Your task to perform on an android device: Search for "razer blade" on walmart.com, select the first entry, add it to the cart, then select checkout. Image 0: 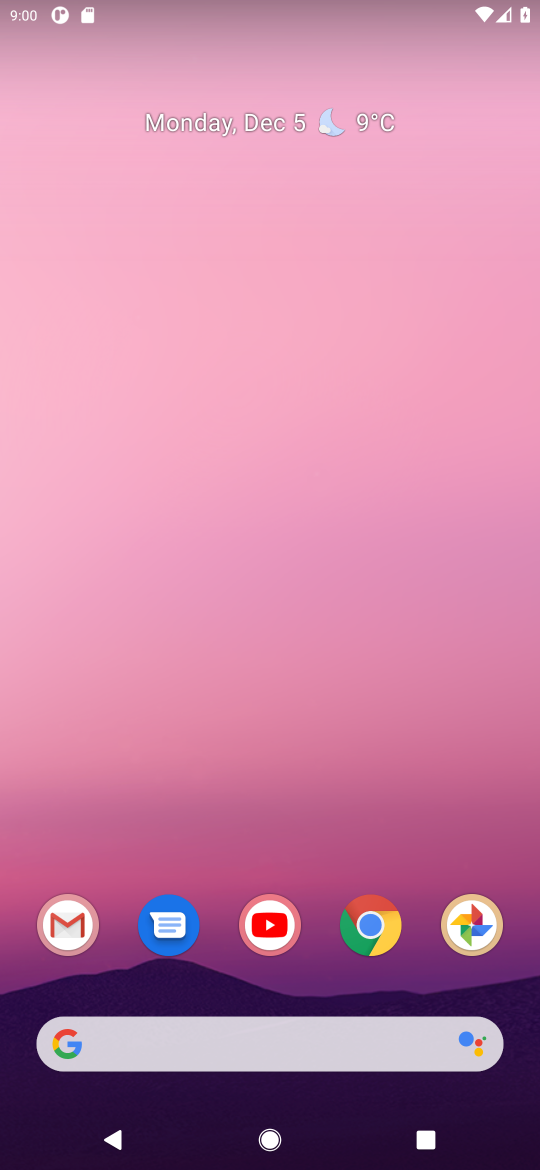
Step 0: click (378, 924)
Your task to perform on an android device: Search for "razer blade" on walmart.com, select the first entry, add it to the cart, then select checkout. Image 1: 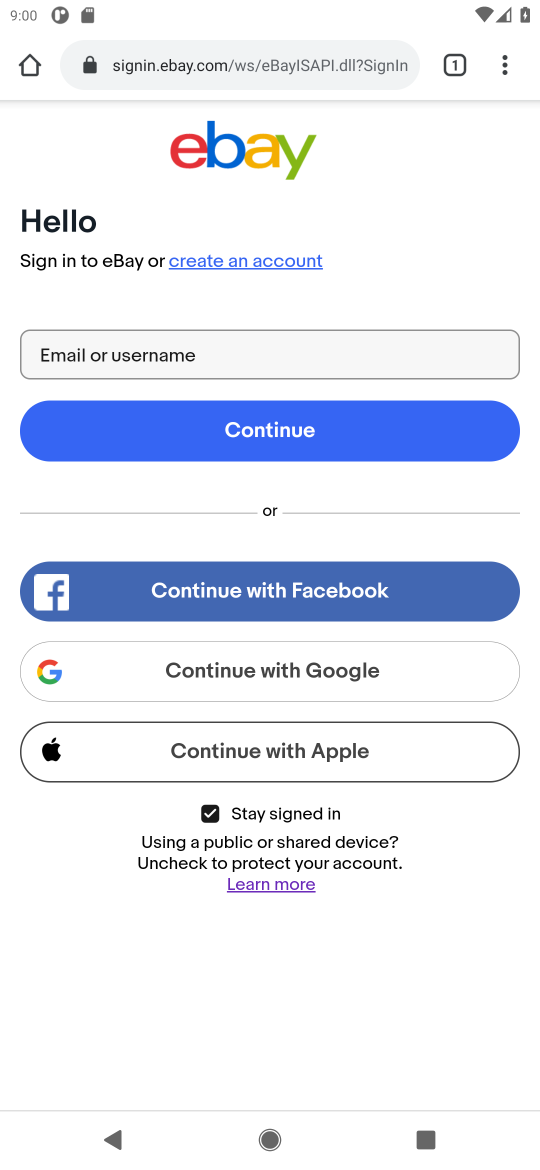
Step 1: click (378, 924)
Your task to perform on an android device: Search for "razer blade" on walmart.com, select the first entry, add it to the cart, then select checkout. Image 2: 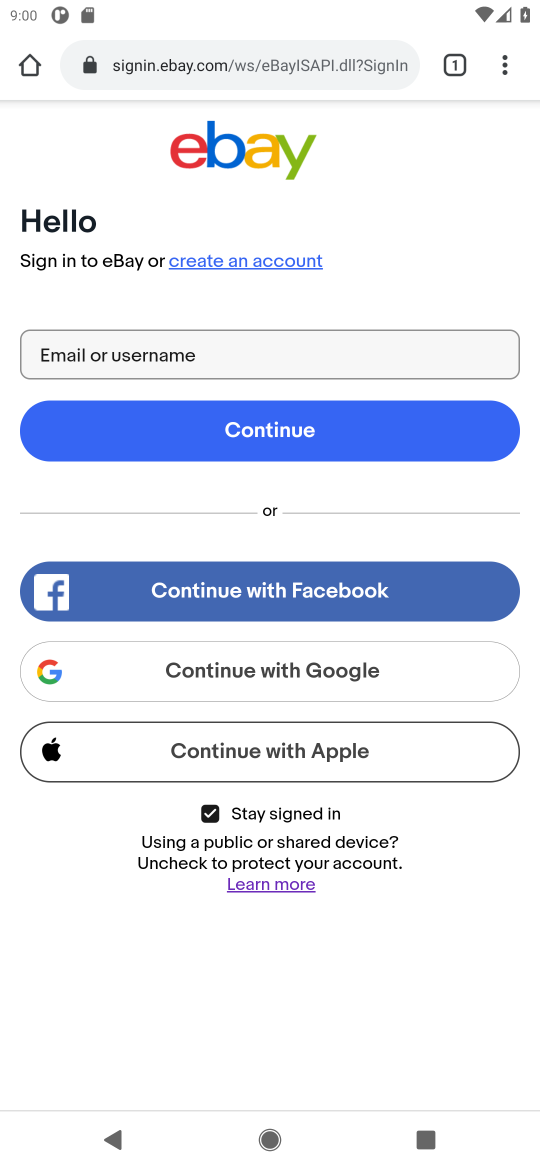
Step 2: click (207, 66)
Your task to perform on an android device: Search for "razer blade" on walmart.com, select the first entry, add it to the cart, then select checkout. Image 3: 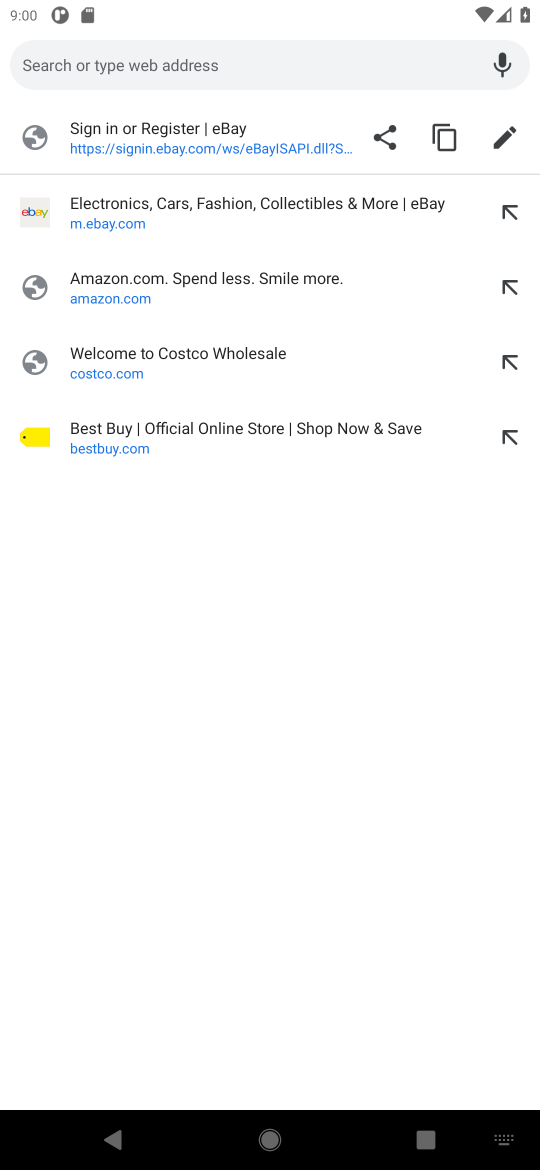
Step 3: type "walmart.com"
Your task to perform on an android device: Search for "razer blade" on walmart.com, select the first entry, add it to the cart, then select checkout. Image 4: 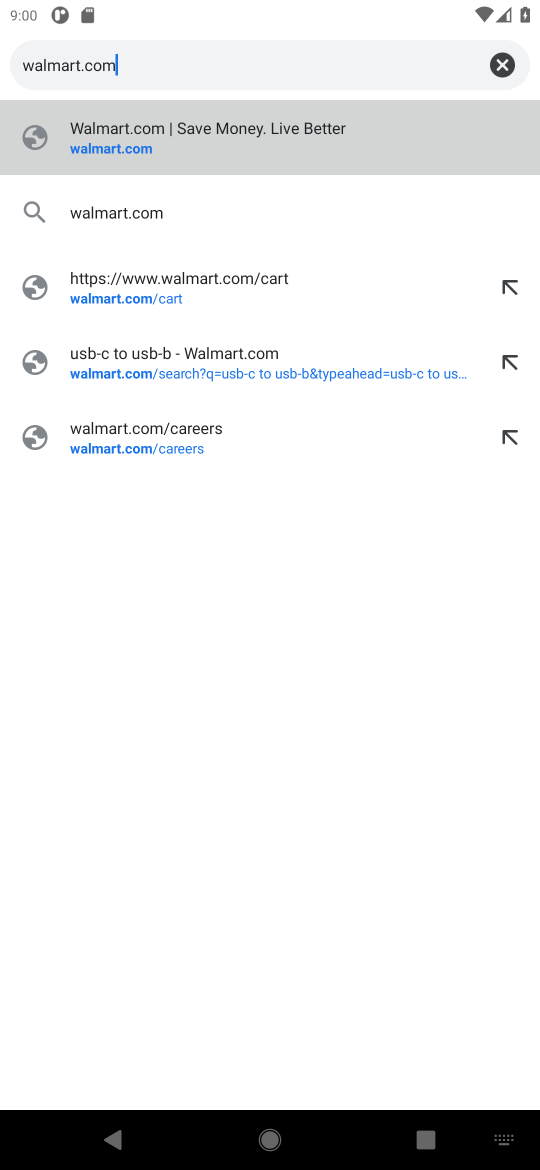
Step 4: click (122, 148)
Your task to perform on an android device: Search for "razer blade" on walmart.com, select the first entry, add it to the cart, then select checkout. Image 5: 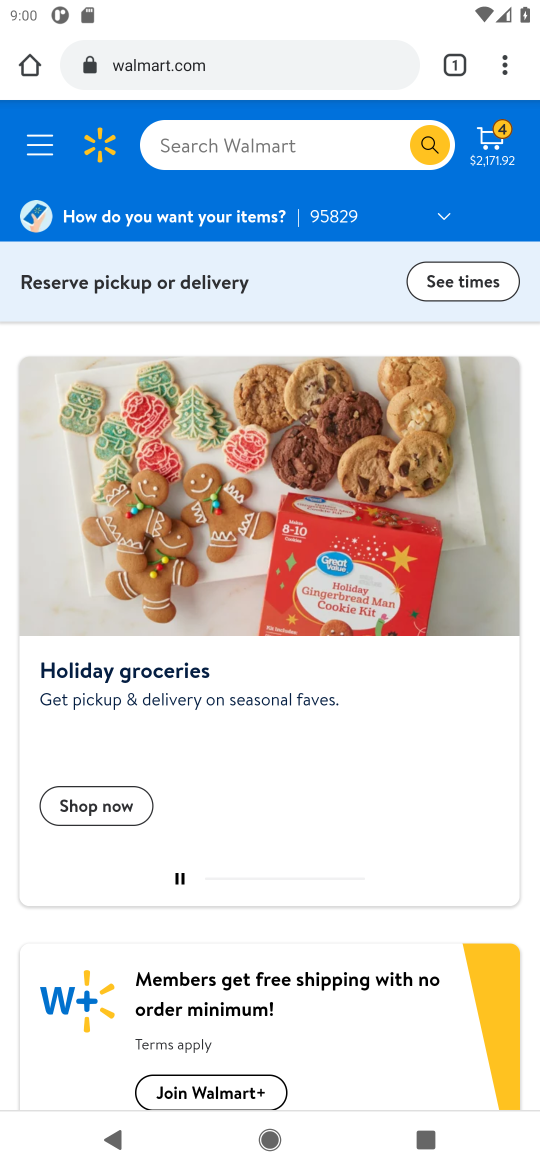
Step 5: click (226, 150)
Your task to perform on an android device: Search for "razer blade" on walmart.com, select the first entry, add it to the cart, then select checkout. Image 6: 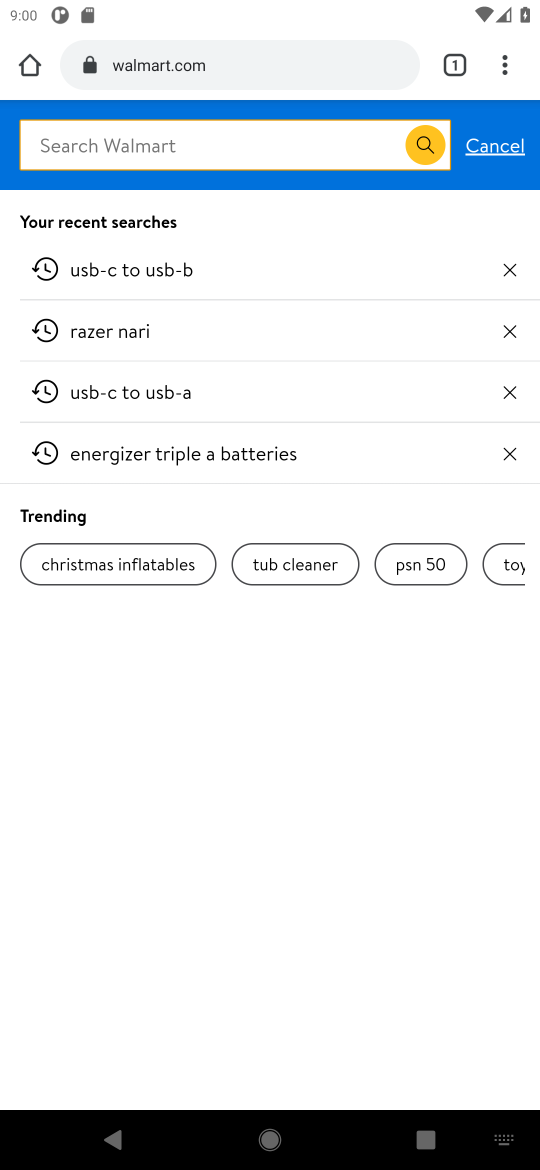
Step 6: type "razer blade"
Your task to perform on an android device: Search for "razer blade" on walmart.com, select the first entry, add it to the cart, then select checkout. Image 7: 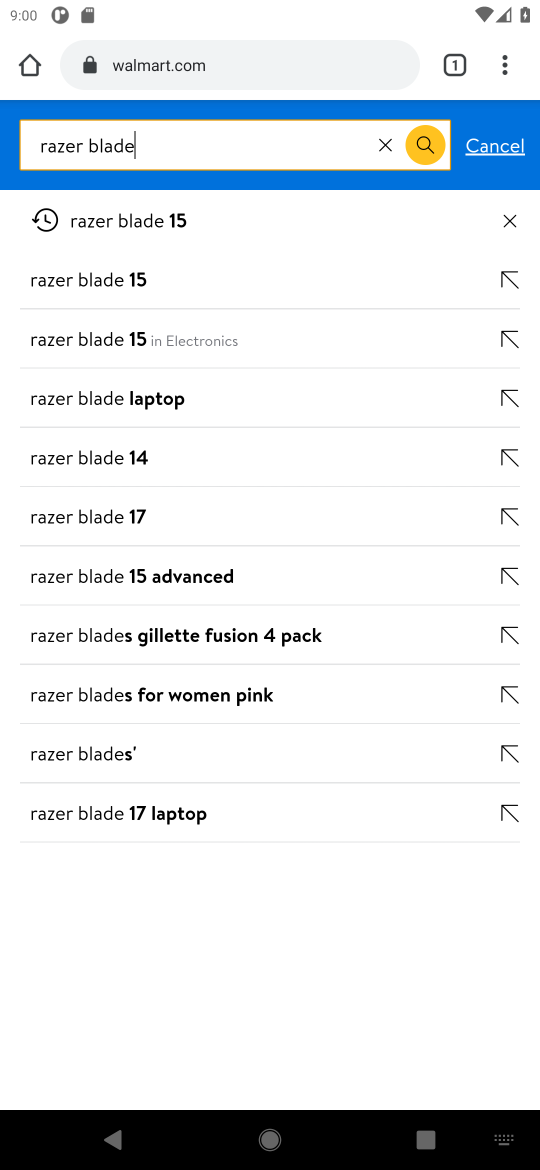
Step 7: click (109, 232)
Your task to perform on an android device: Search for "razer blade" on walmart.com, select the first entry, add it to the cart, then select checkout. Image 8: 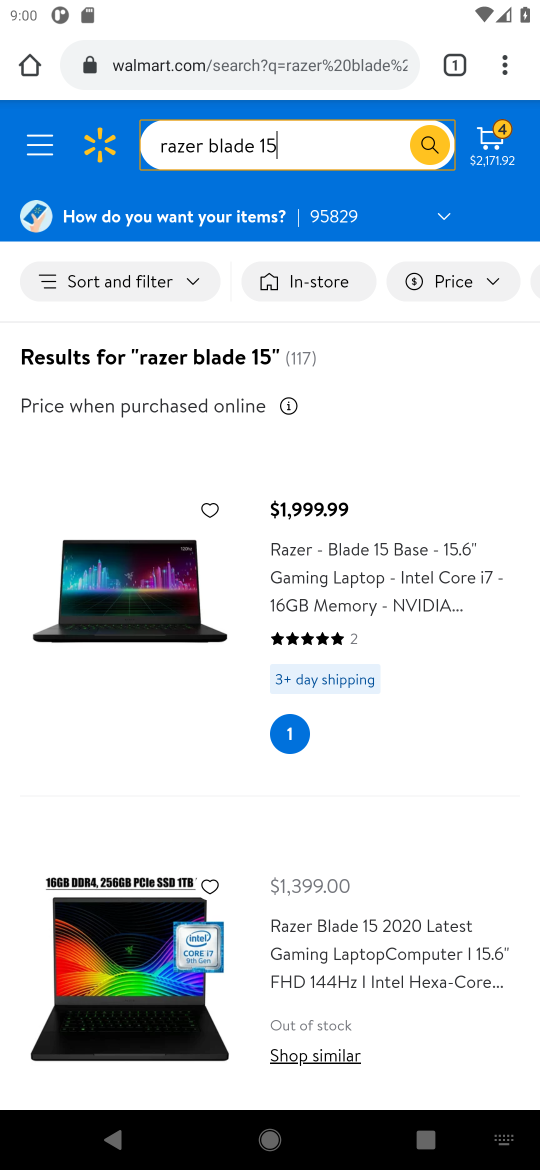
Step 8: click (312, 578)
Your task to perform on an android device: Search for "razer blade" on walmart.com, select the first entry, add it to the cart, then select checkout. Image 9: 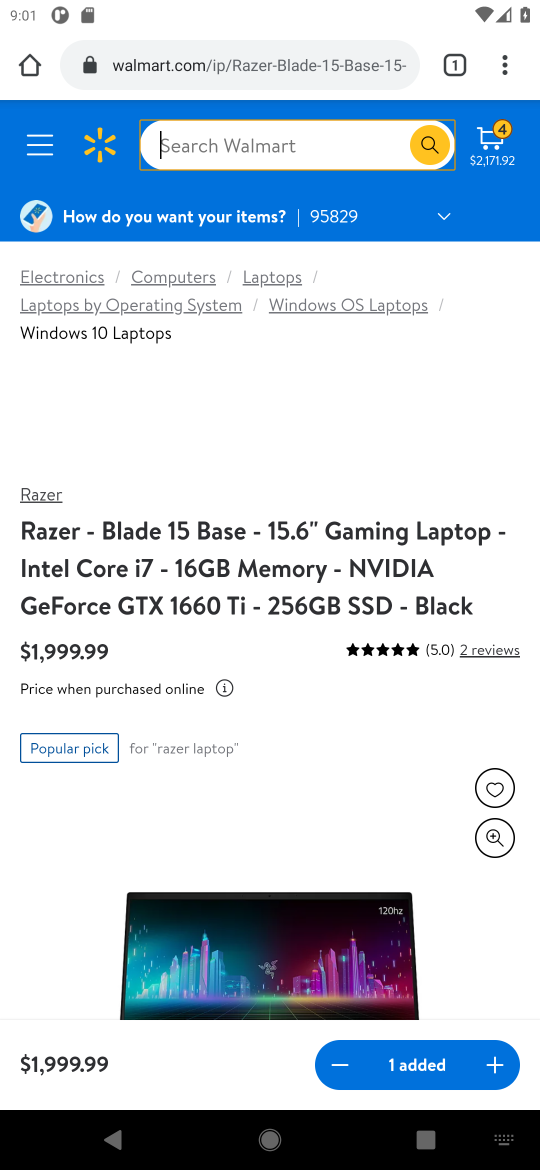
Step 9: click (488, 1064)
Your task to perform on an android device: Search for "razer blade" on walmart.com, select the first entry, add it to the cart, then select checkout. Image 10: 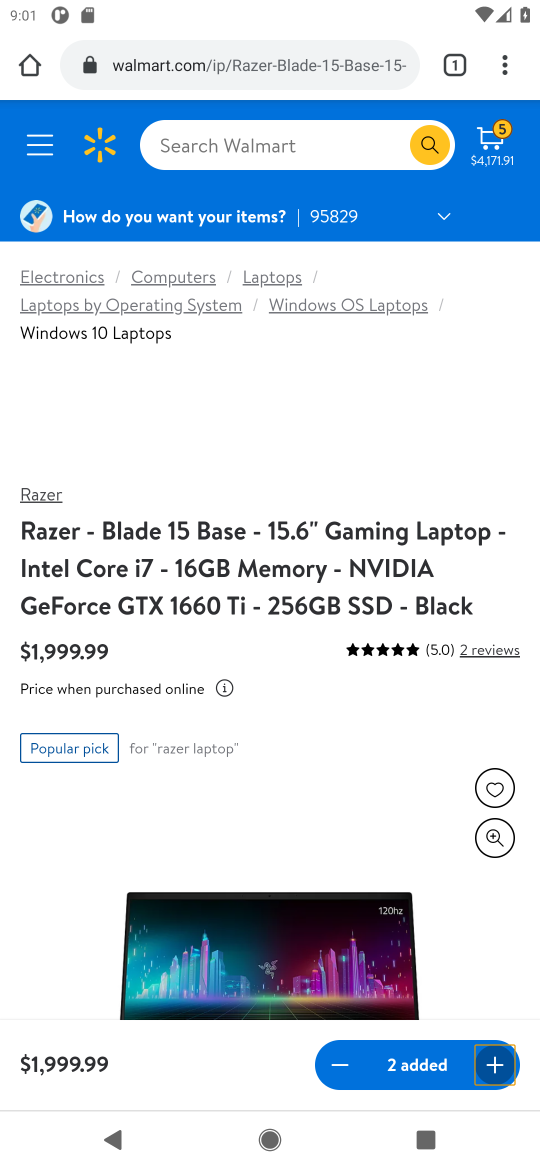
Step 10: click (491, 151)
Your task to perform on an android device: Search for "razer blade" on walmart.com, select the first entry, add it to the cart, then select checkout. Image 11: 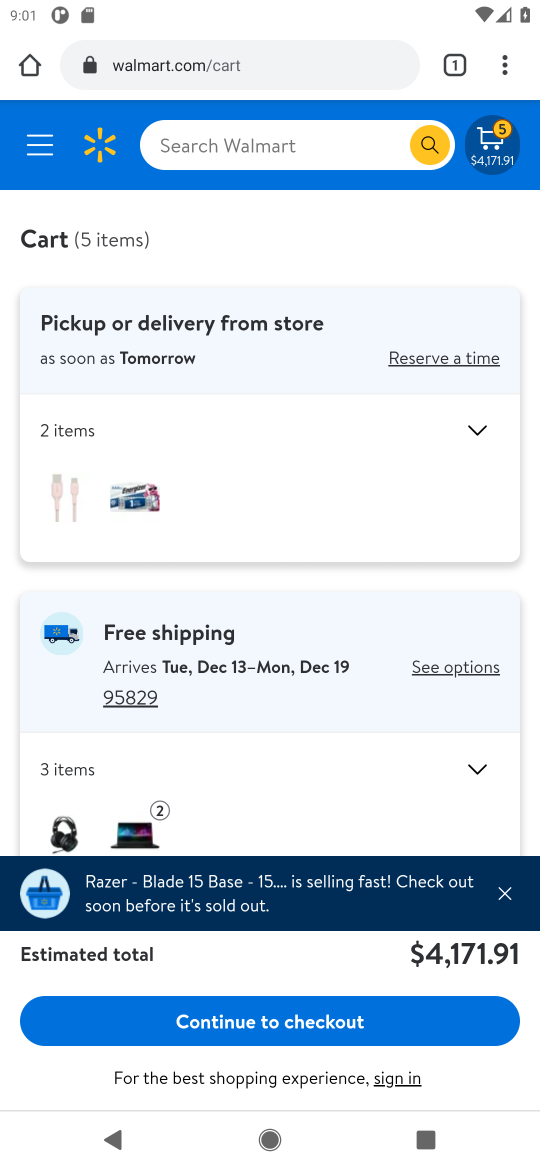
Step 11: click (285, 1030)
Your task to perform on an android device: Search for "razer blade" on walmart.com, select the first entry, add it to the cart, then select checkout. Image 12: 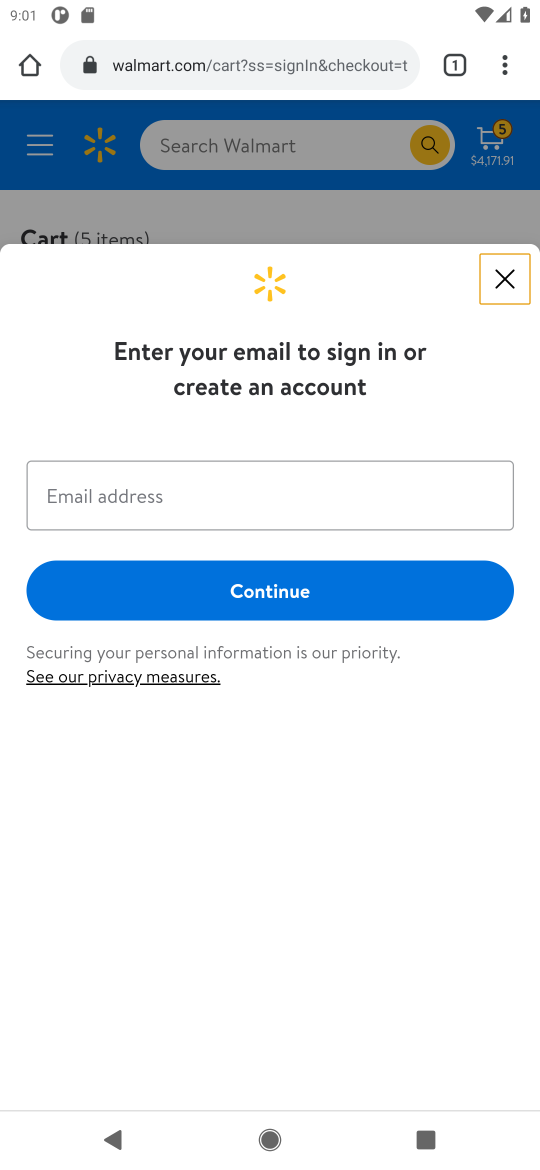
Step 12: task complete